Your task to perform on an android device: turn on bluetooth scan Image 0: 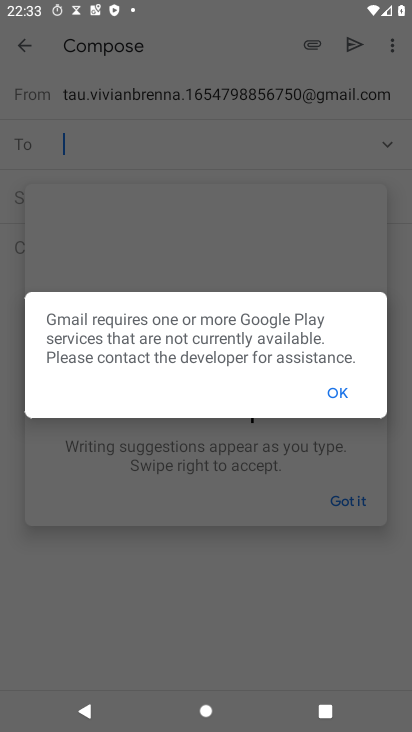
Step 0: press home button
Your task to perform on an android device: turn on bluetooth scan Image 1: 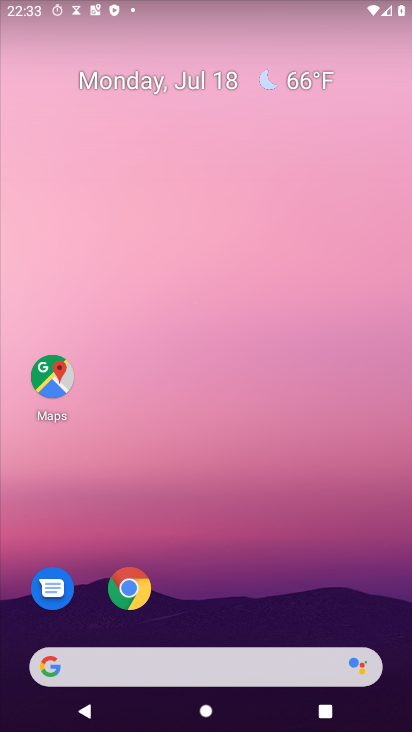
Step 1: drag from (162, 677) to (336, 99)
Your task to perform on an android device: turn on bluetooth scan Image 2: 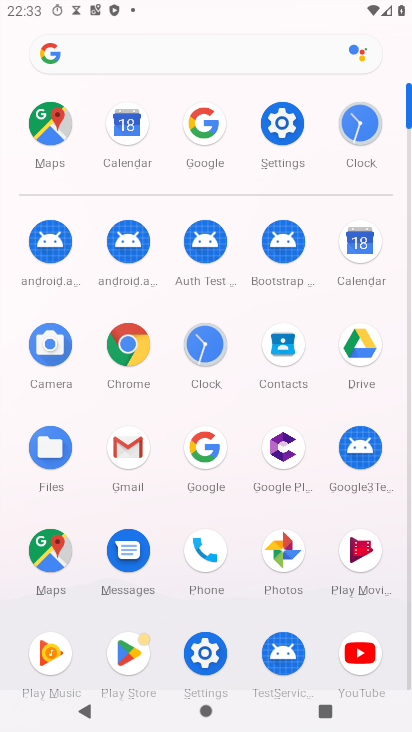
Step 2: click (280, 115)
Your task to perform on an android device: turn on bluetooth scan Image 3: 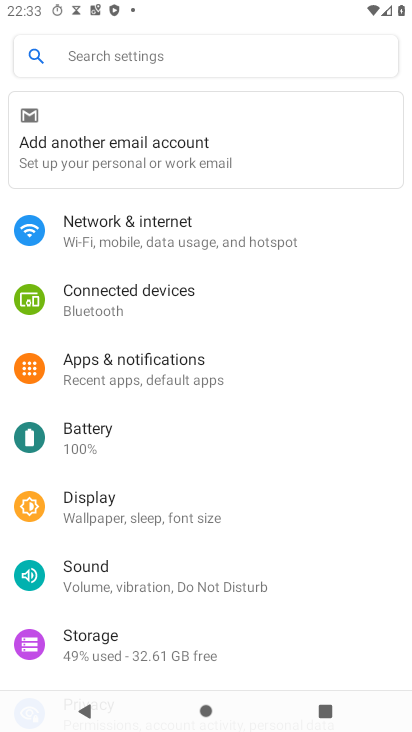
Step 3: drag from (163, 626) to (300, 60)
Your task to perform on an android device: turn on bluetooth scan Image 4: 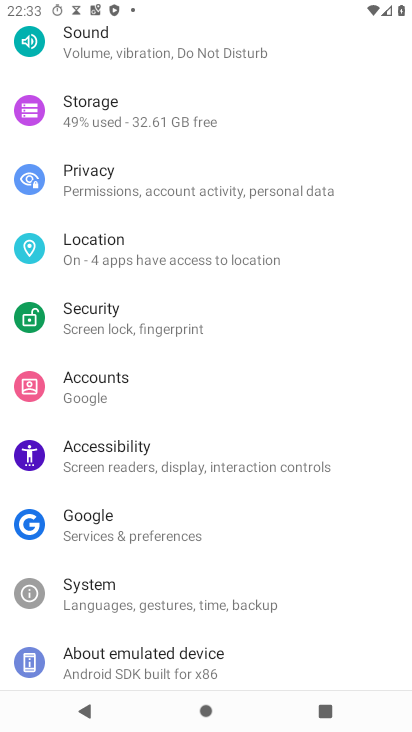
Step 4: click (123, 253)
Your task to perform on an android device: turn on bluetooth scan Image 5: 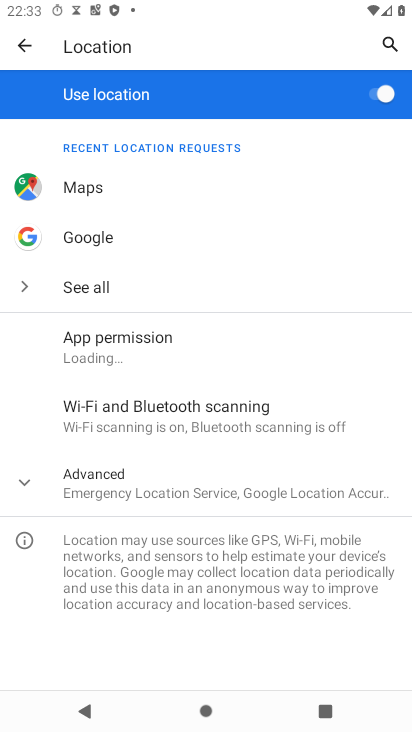
Step 5: click (159, 420)
Your task to perform on an android device: turn on bluetooth scan Image 6: 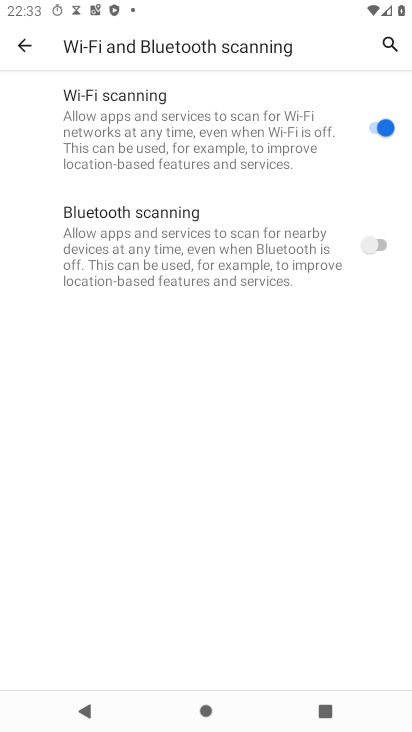
Step 6: click (381, 243)
Your task to perform on an android device: turn on bluetooth scan Image 7: 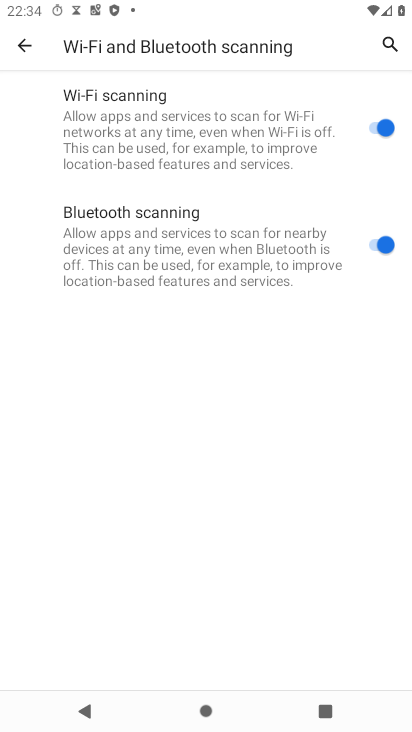
Step 7: task complete